Your task to perform on an android device: toggle pop-ups in chrome Image 0: 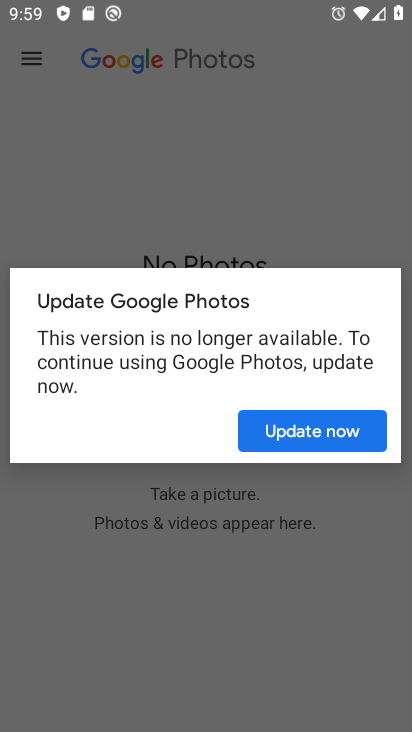
Step 0: press home button
Your task to perform on an android device: toggle pop-ups in chrome Image 1: 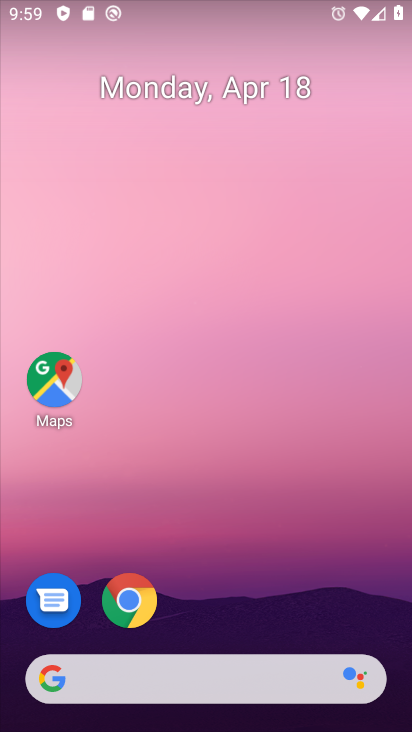
Step 1: drag from (228, 653) to (356, 12)
Your task to perform on an android device: toggle pop-ups in chrome Image 2: 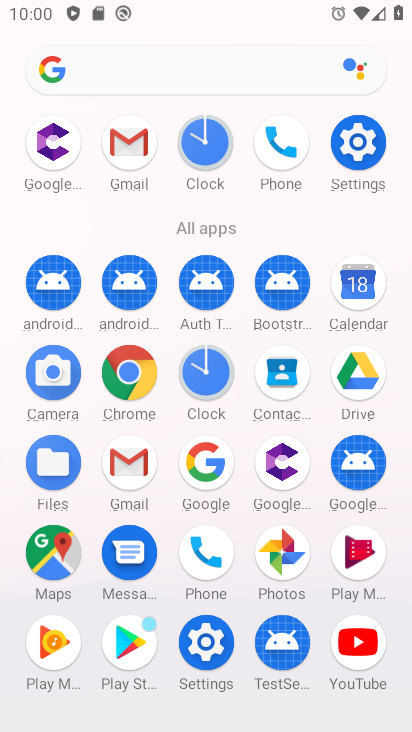
Step 2: click (148, 367)
Your task to perform on an android device: toggle pop-ups in chrome Image 3: 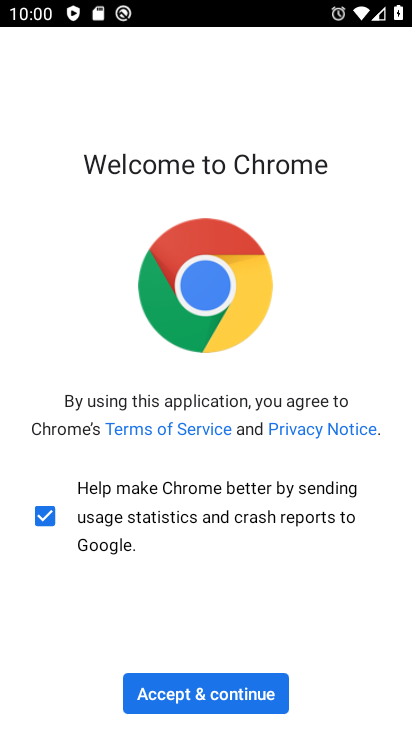
Step 3: click (227, 692)
Your task to perform on an android device: toggle pop-ups in chrome Image 4: 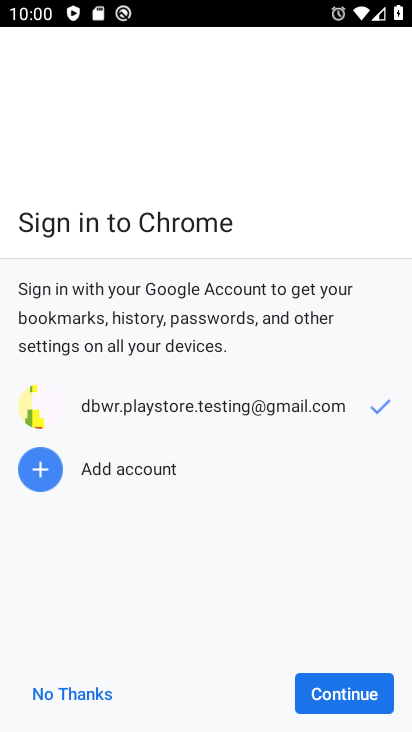
Step 4: click (319, 688)
Your task to perform on an android device: toggle pop-ups in chrome Image 5: 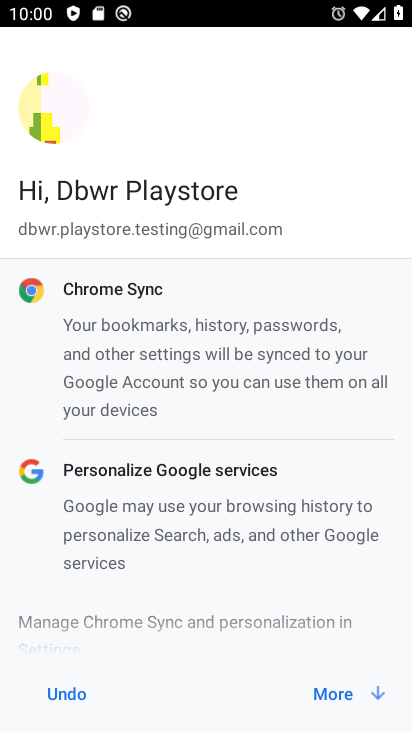
Step 5: click (366, 689)
Your task to perform on an android device: toggle pop-ups in chrome Image 6: 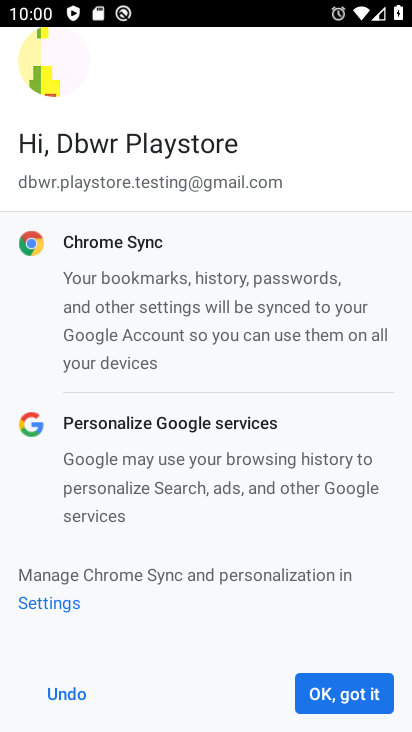
Step 6: click (366, 689)
Your task to perform on an android device: toggle pop-ups in chrome Image 7: 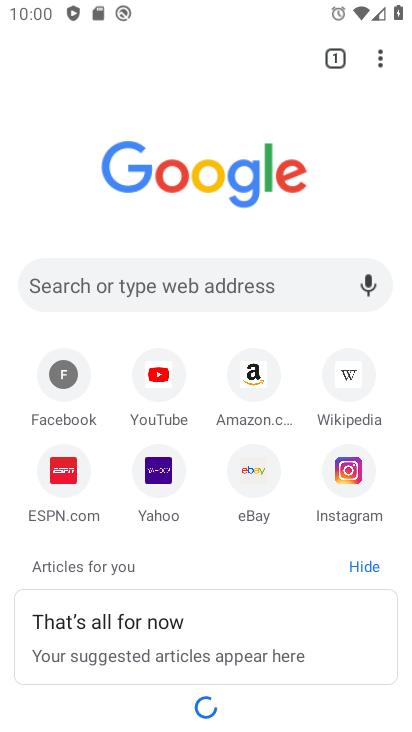
Step 7: click (370, 56)
Your task to perform on an android device: toggle pop-ups in chrome Image 8: 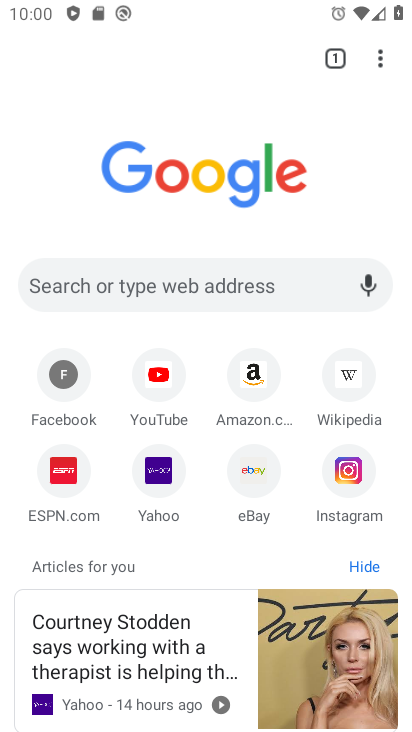
Step 8: drag from (381, 57) to (204, 491)
Your task to perform on an android device: toggle pop-ups in chrome Image 9: 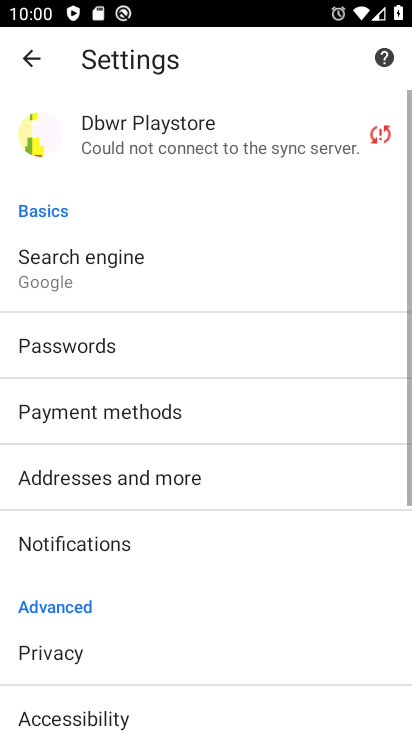
Step 9: drag from (207, 484) to (188, 18)
Your task to perform on an android device: toggle pop-ups in chrome Image 10: 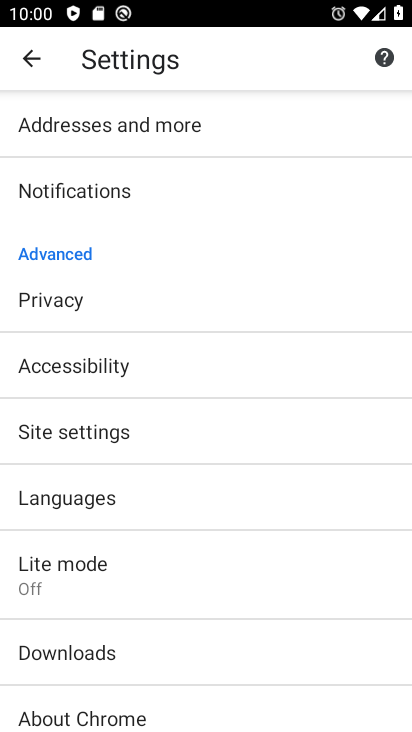
Step 10: click (107, 435)
Your task to perform on an android device: toggle pop-ups in chrome Image 11: 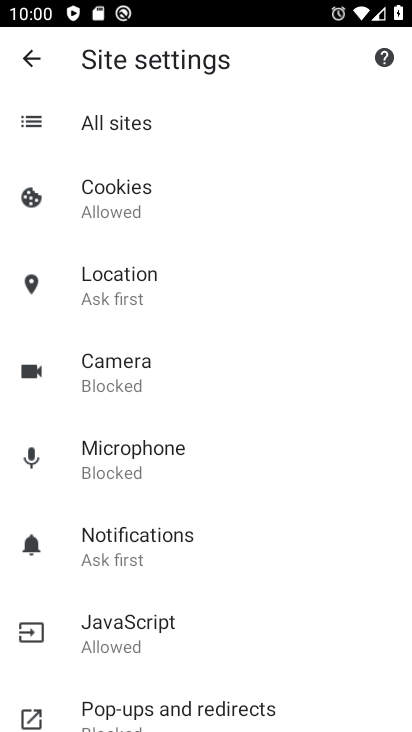
Step 11: drag from (157, 519) to (138, 205)
Your task to perform on an android device: toggle pop-ups in chrome Image 12: 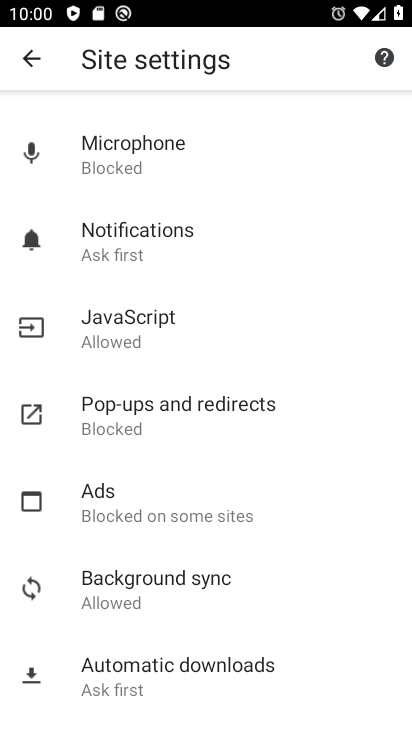
Step 12: click (145, 410)
Your task to perform on an android device: toggle pop-ups in chrome Image 13: 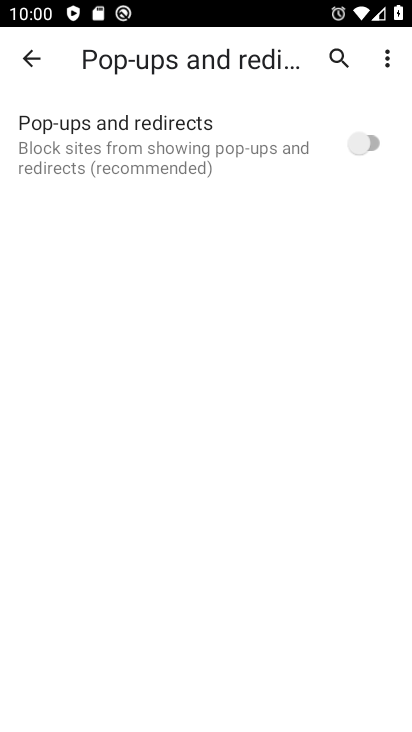
Step 13: click (375, 137)
Your task to perform on an android device: toggle pop-ups in chrome Image 14: 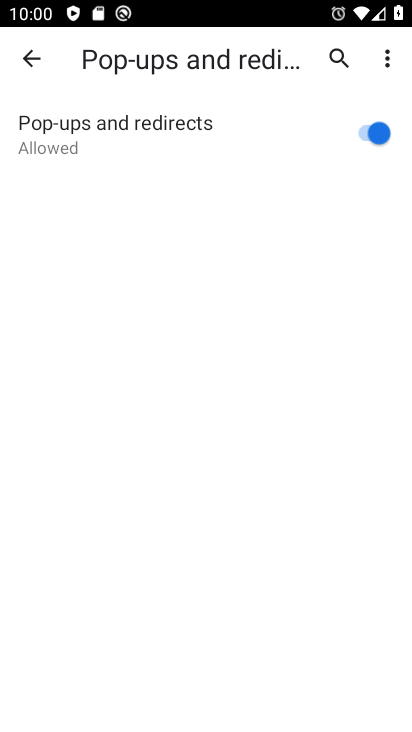
Step 14: task complete